Your task to perform on an android device: View the shopping cart on newegg.com. Image 0: 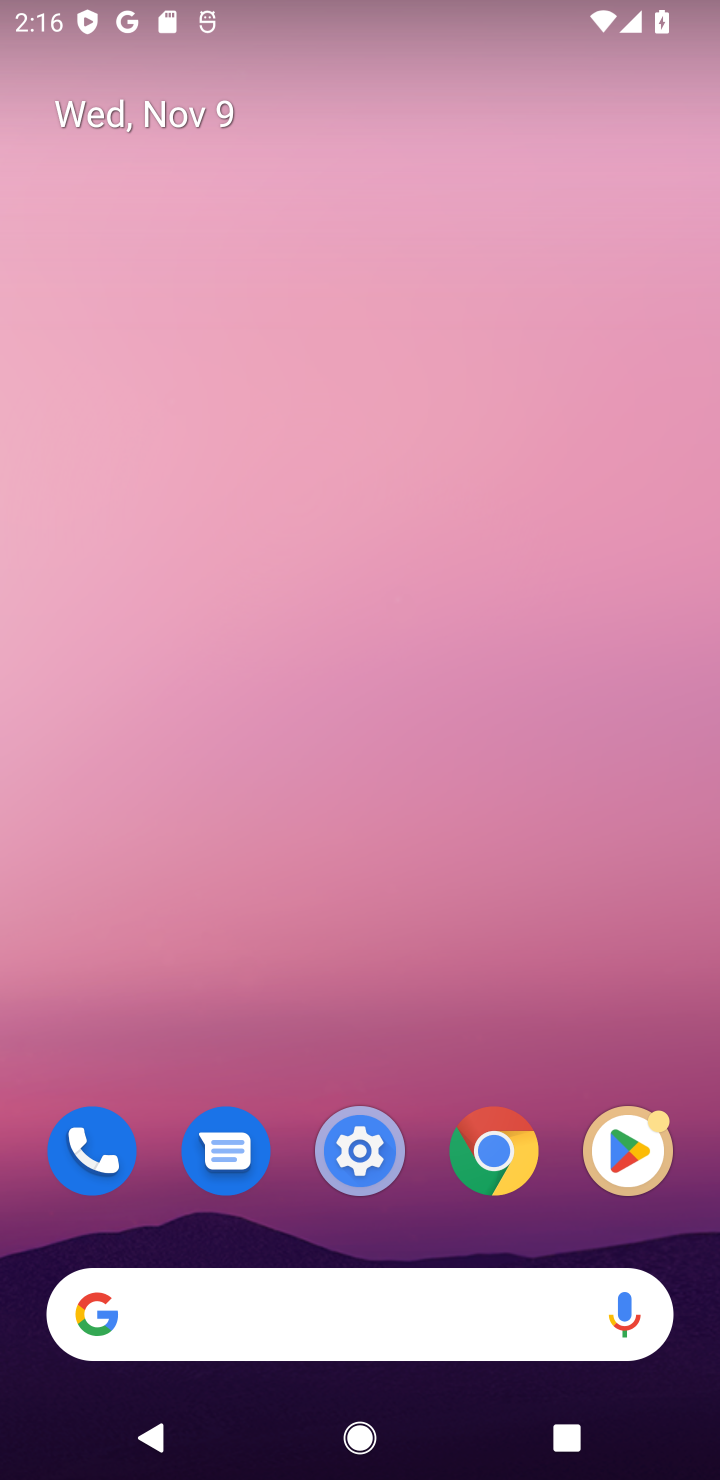
Step 0: click (341, 1293)
Your task to perform on an android device: View the shopping cart on newegg.com. Image 1: 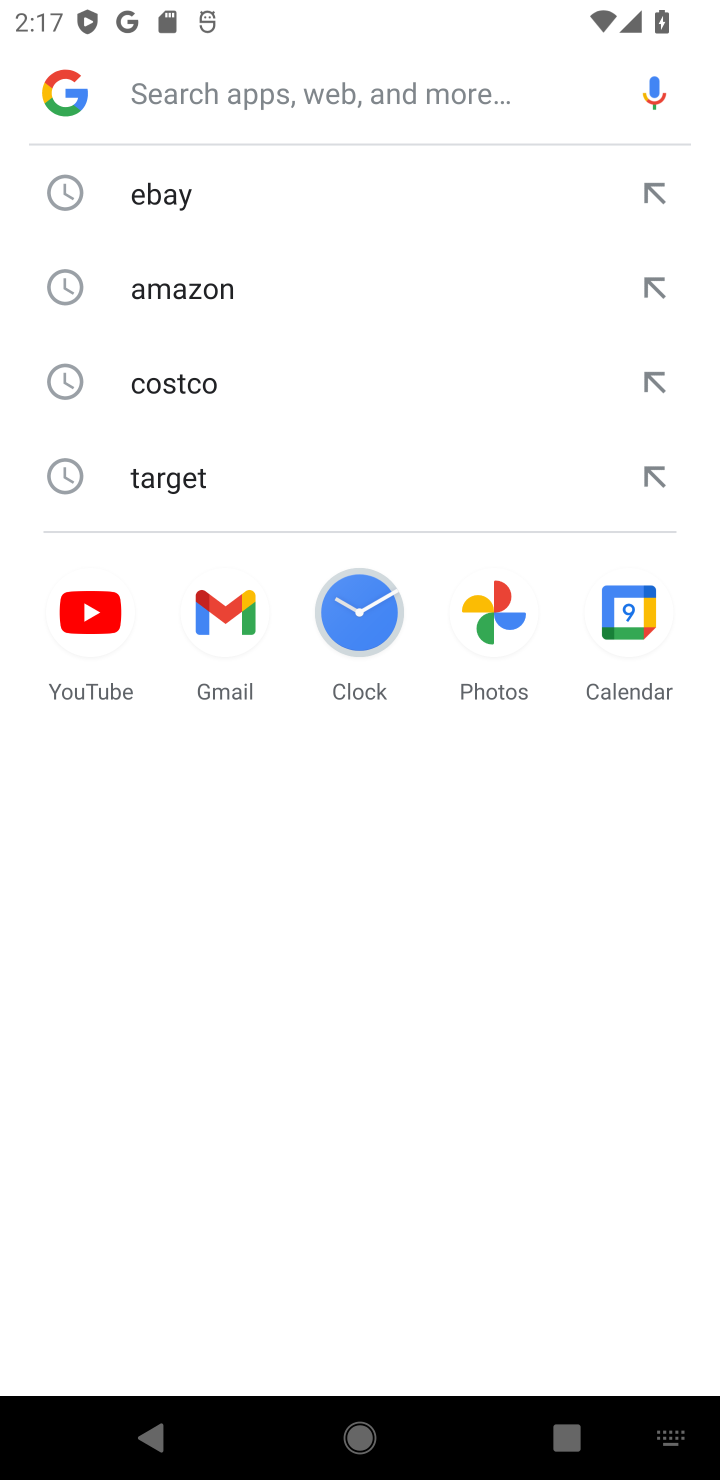
Step 1: type "newegg.com"
Your task to perform on an android device: View the shopping cart on newegg.com. Image 2: 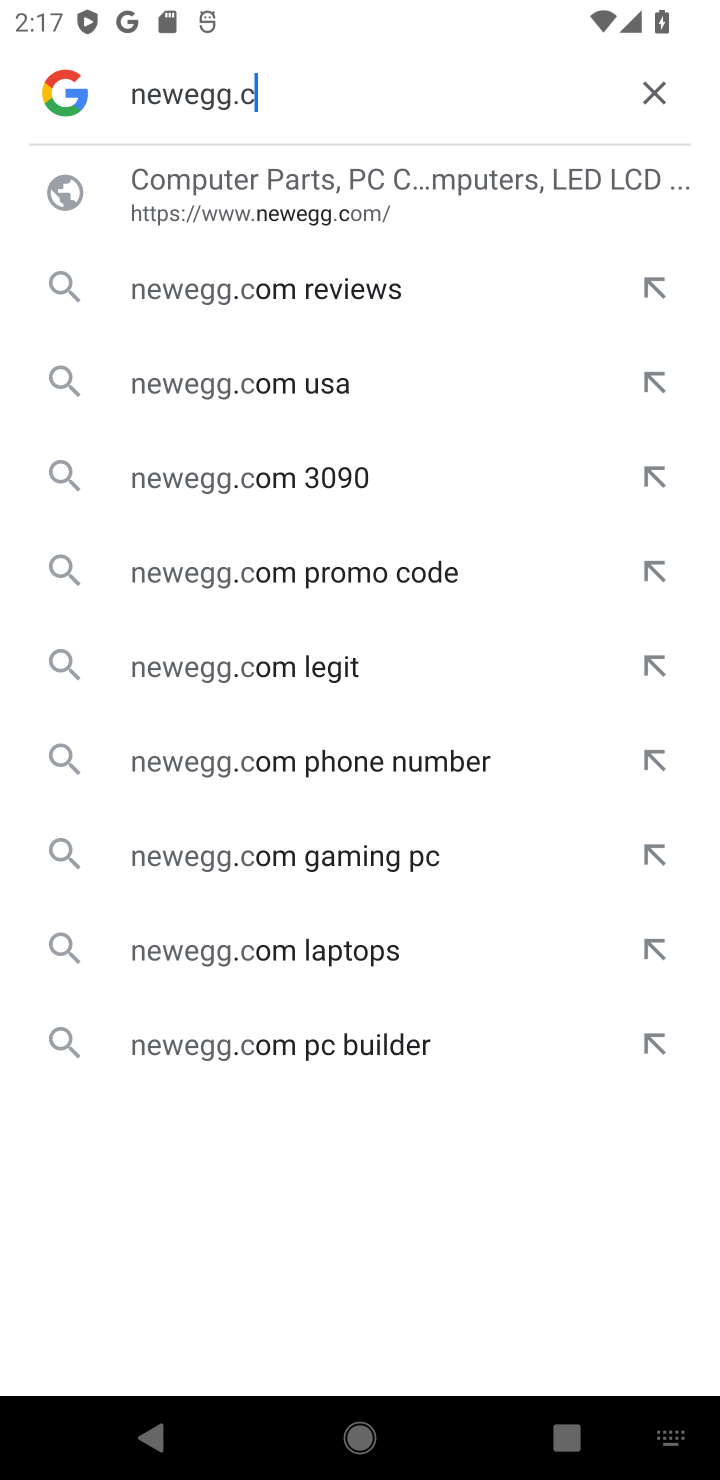
Step 2: type ""
Your task to perform on an android device: View the shopping cart on newegg.com. Image 3: 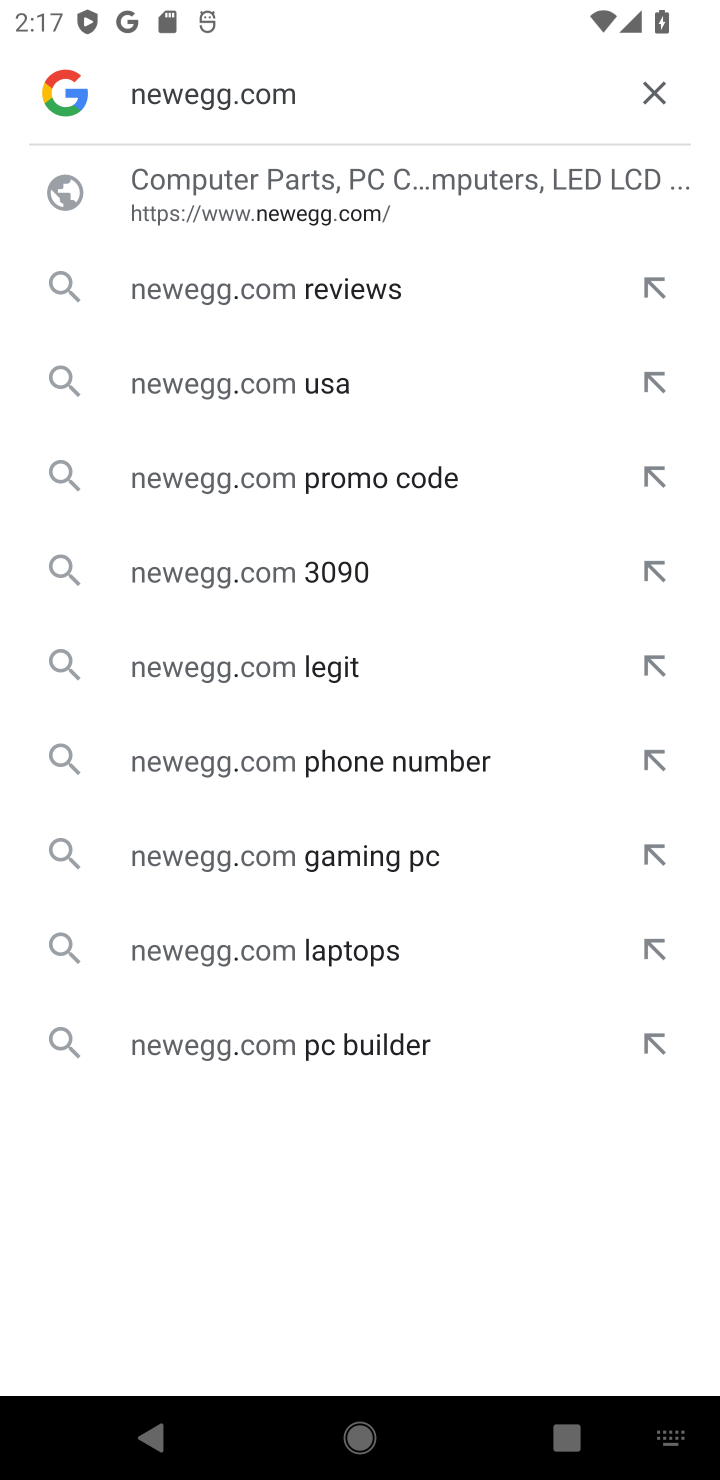
Step 3: press enter
Your task to perform on an android device: View the shopping cart on newegg.com. Image 4: 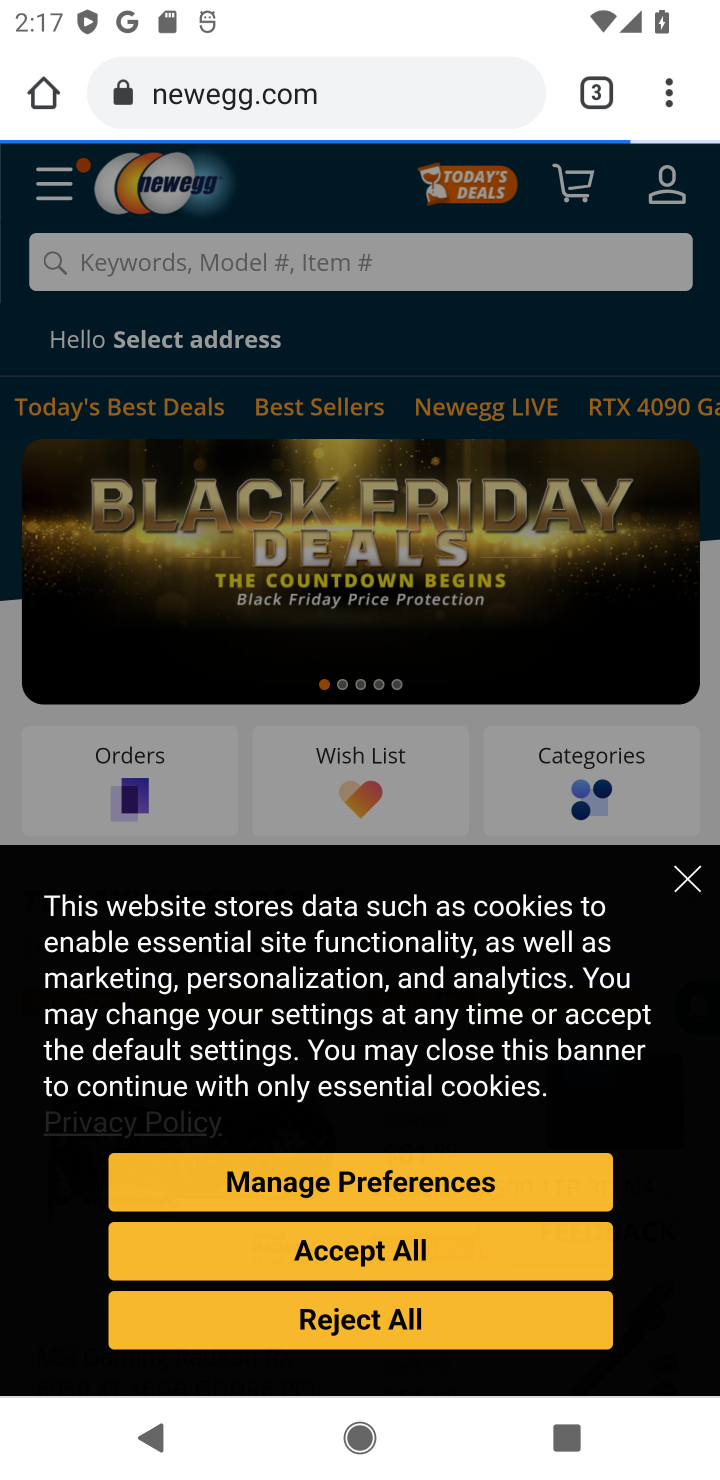
Step 4: click (259, 261)
Your task to perform on an android device: View the shopping cart on newegg.com. Image 5: 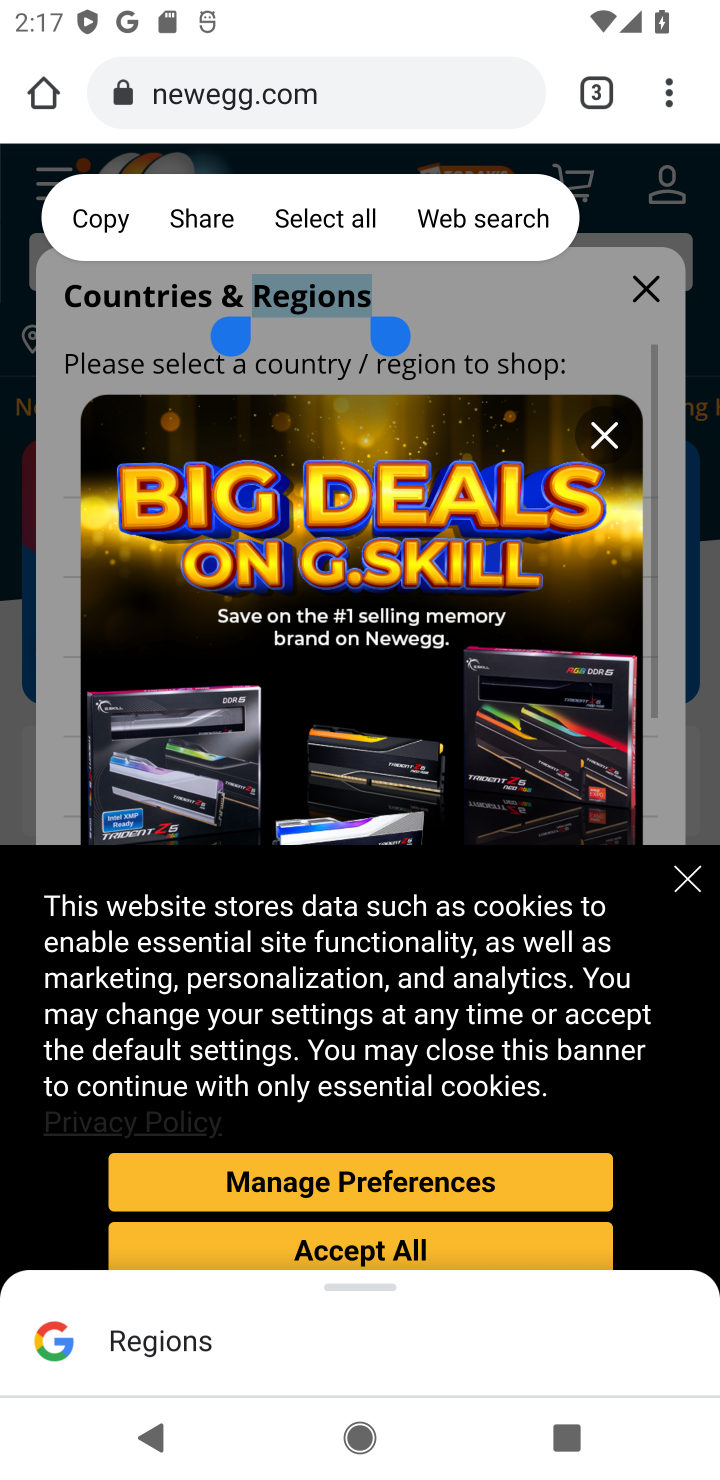
Step 5: click (691, 882)
Your task to perform on an android device: View the shopping cart on newegg.com. Image 6: 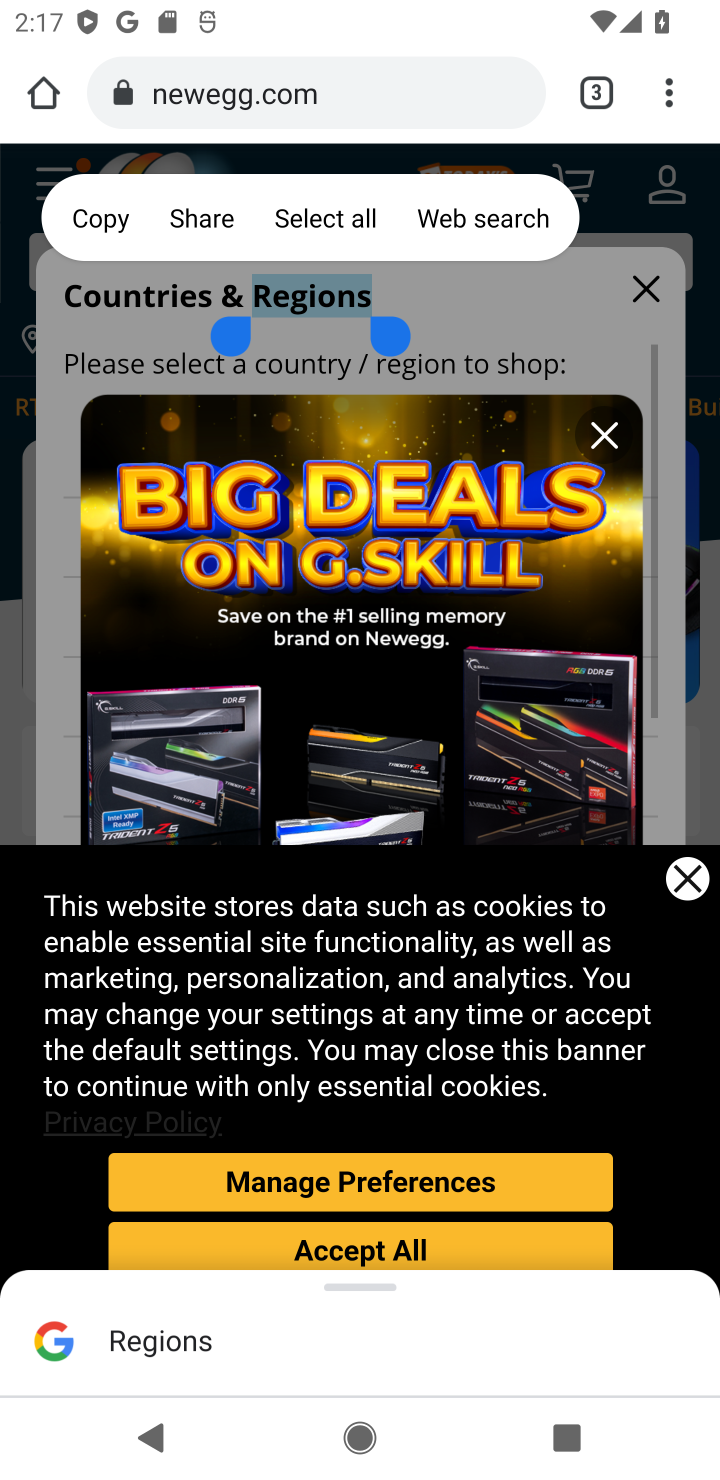
Step 6: click (689, 880)
Your task to perform on an android device: View the shopping cart on newegg.com. Image 7: 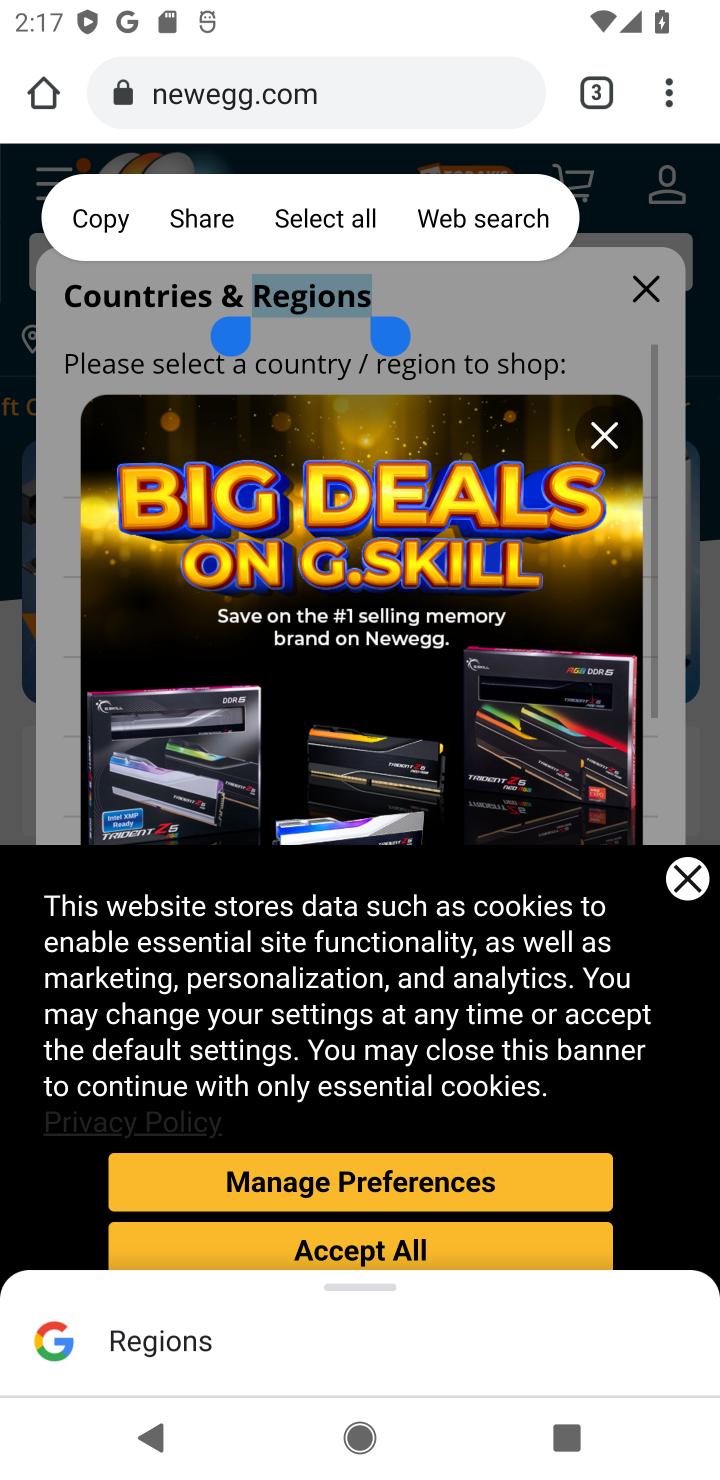
Step 7: click (689, 880)
Your task to perform on an android device: View the shopping cart on newegg.com. Image 8: 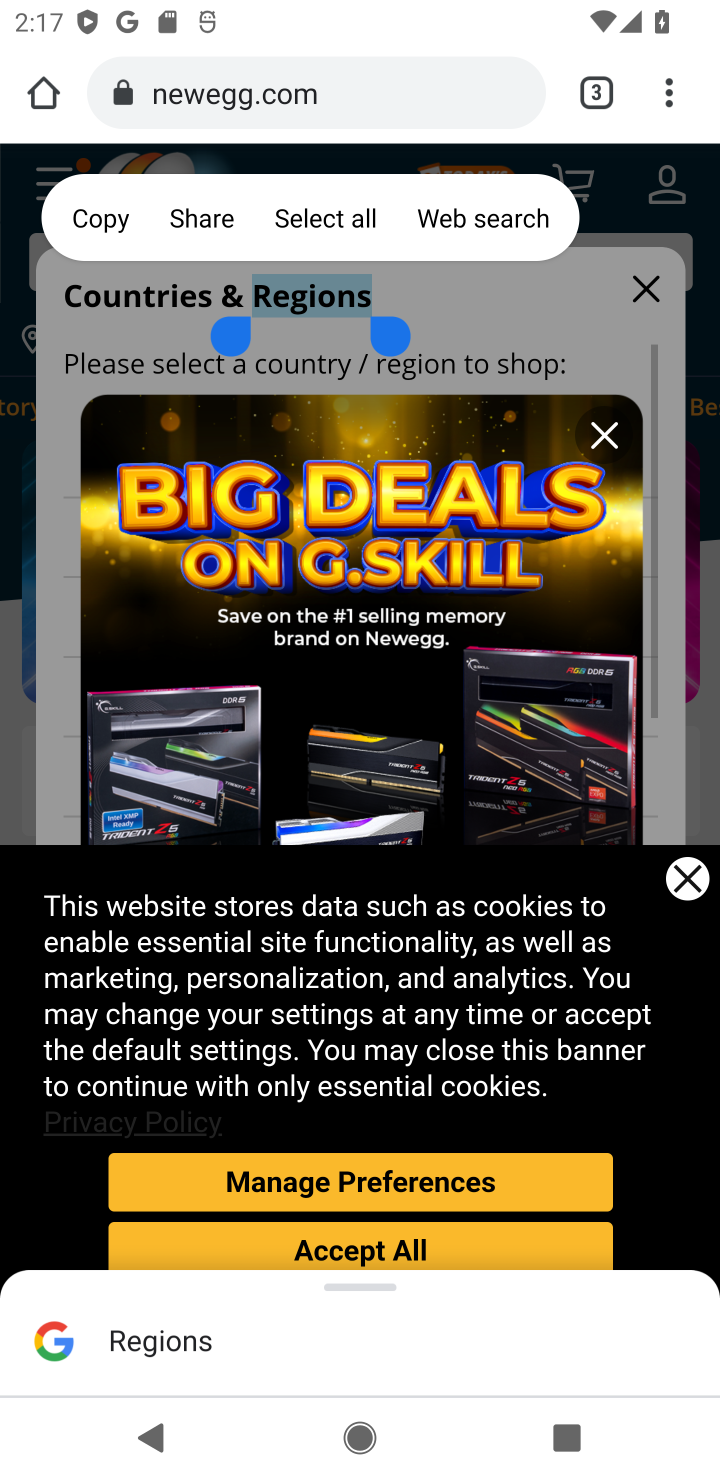
Step 8: click (700, 1034)
Your task to perform on an android device: View the shopping cart on newegg.com. Image 9: 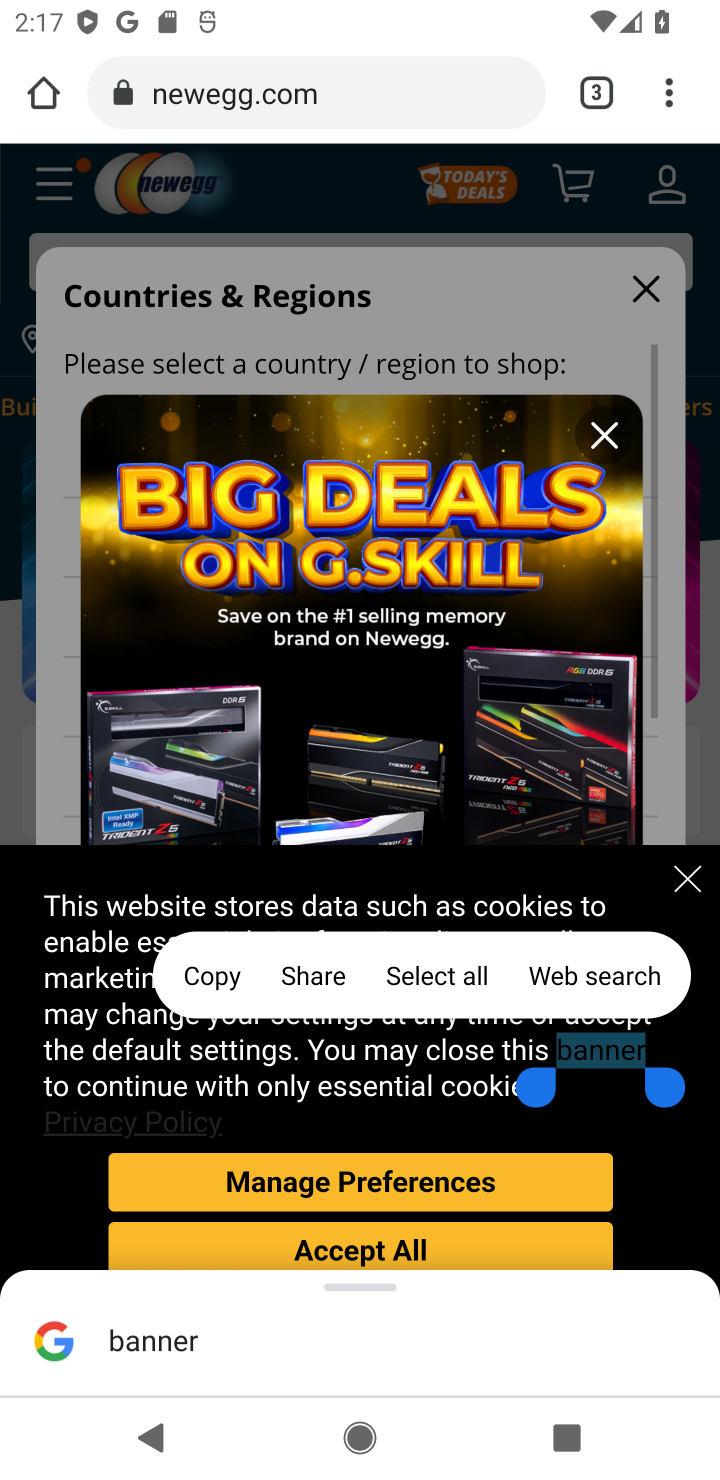
Step 9: click (662, 1168)
Your task to perform on an android device: View the shopping cart on newegg.com. Image 10: 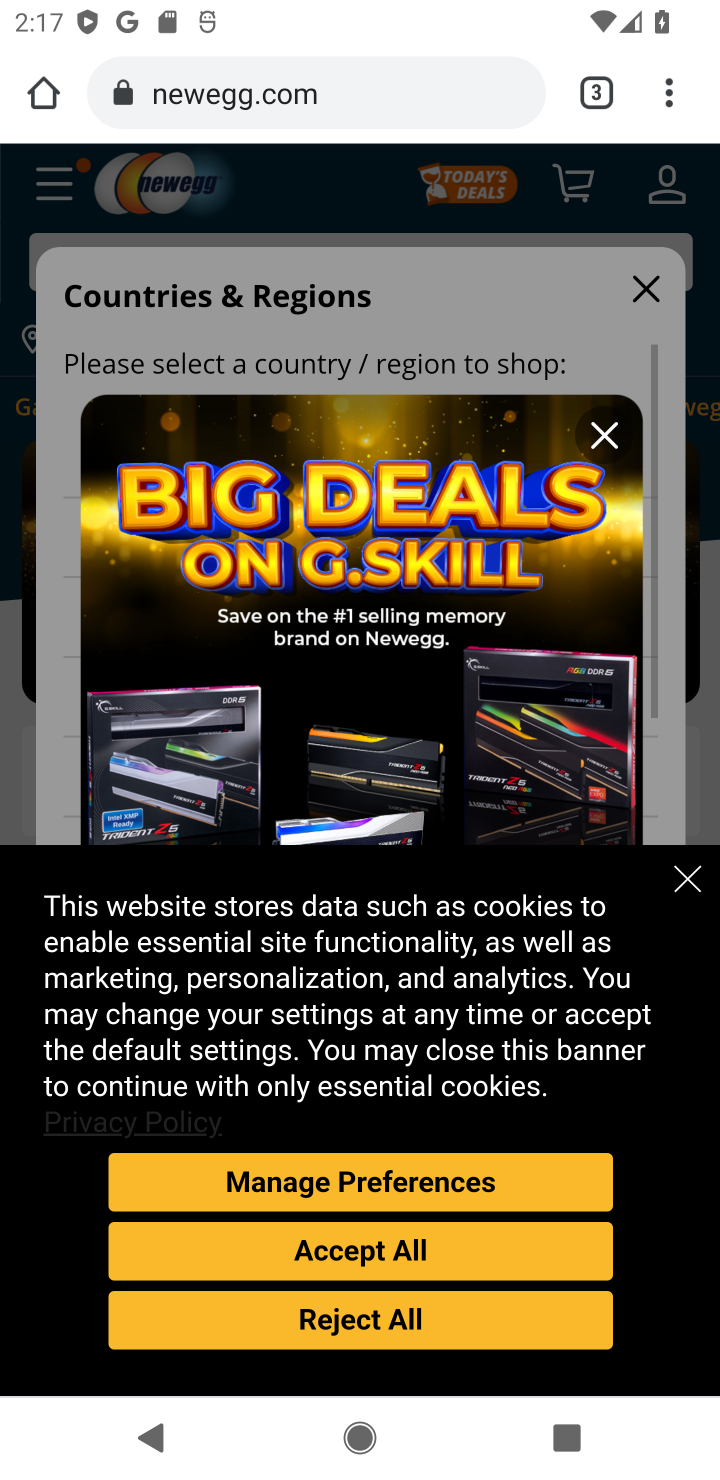
Step 10: click (381, 1329)
Your task to perform on an android device: View the shopping cart on newegg.com. Image 11: 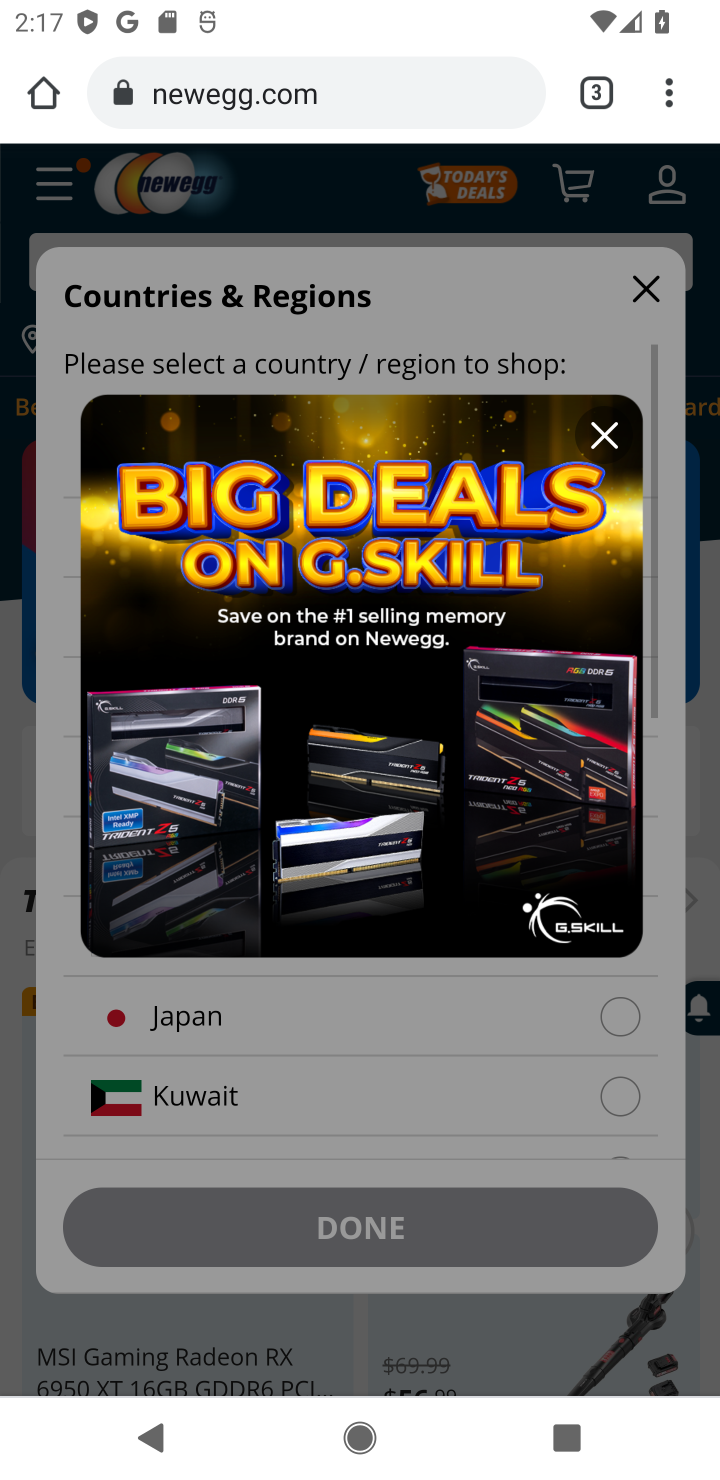
Step 11: click (649, 293)
Your task to perform on an android device: View the shopping cart on newegg.com. Image 12: 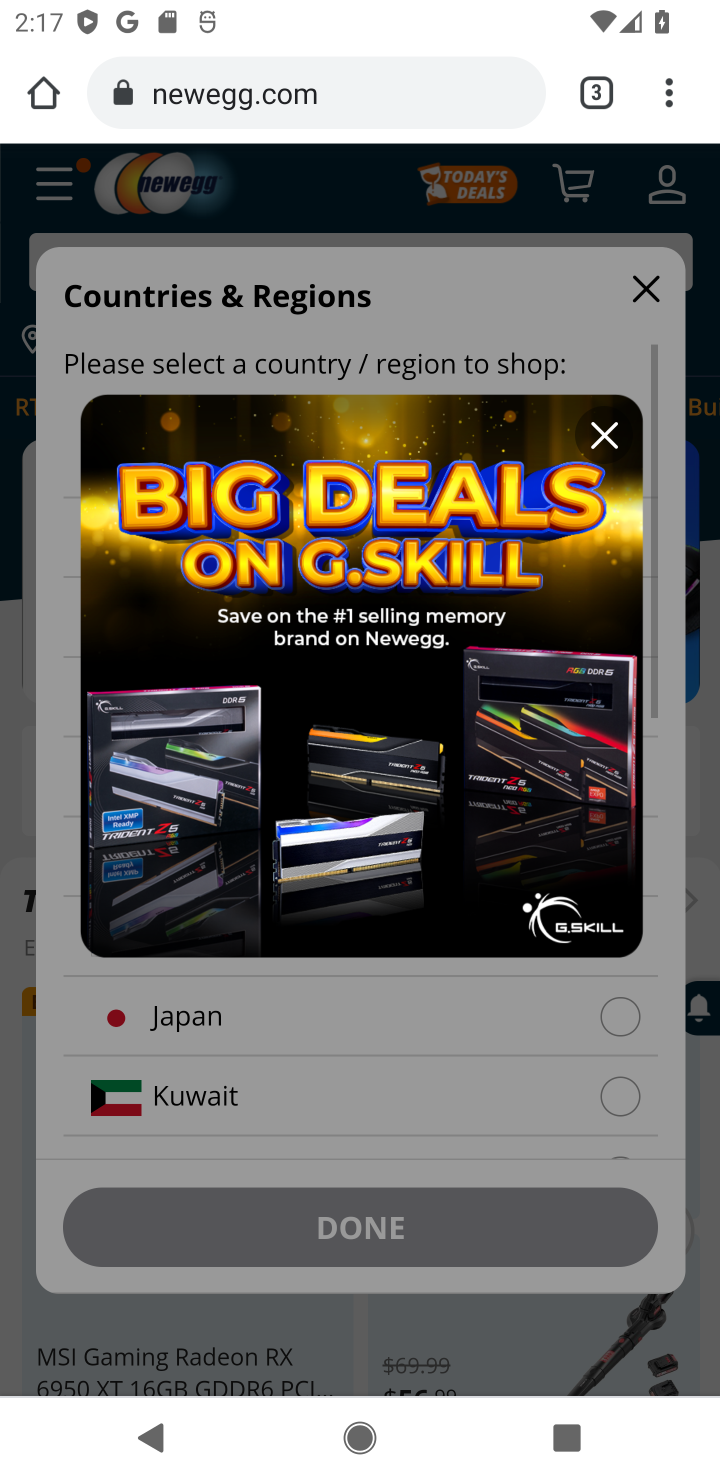
Step 12: click (649, 287)
Your task to perform on an android device: View the shopping cart on newegg.com. Image 13: 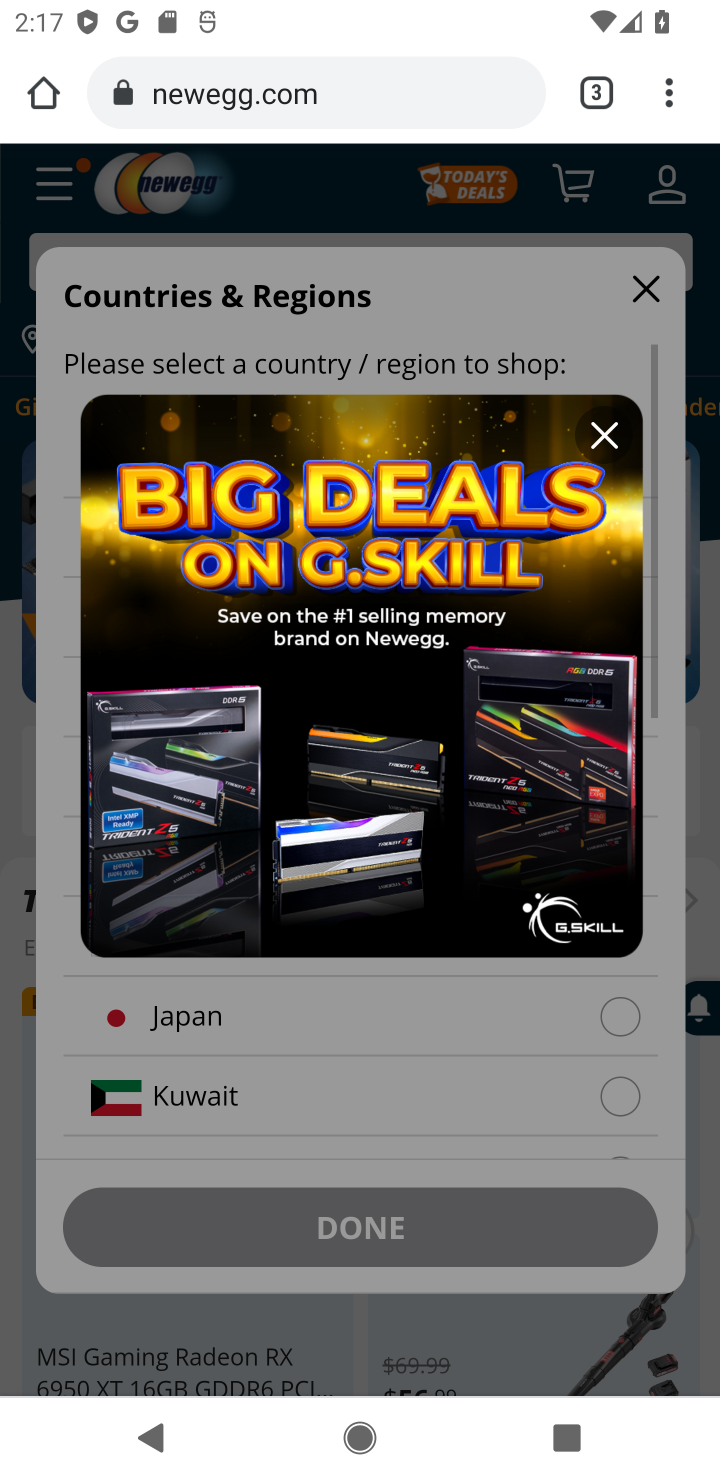
Step 13: click (606, 438)
Your task to perform on an android device: View the shopping cart on newegg.com. Image 14: 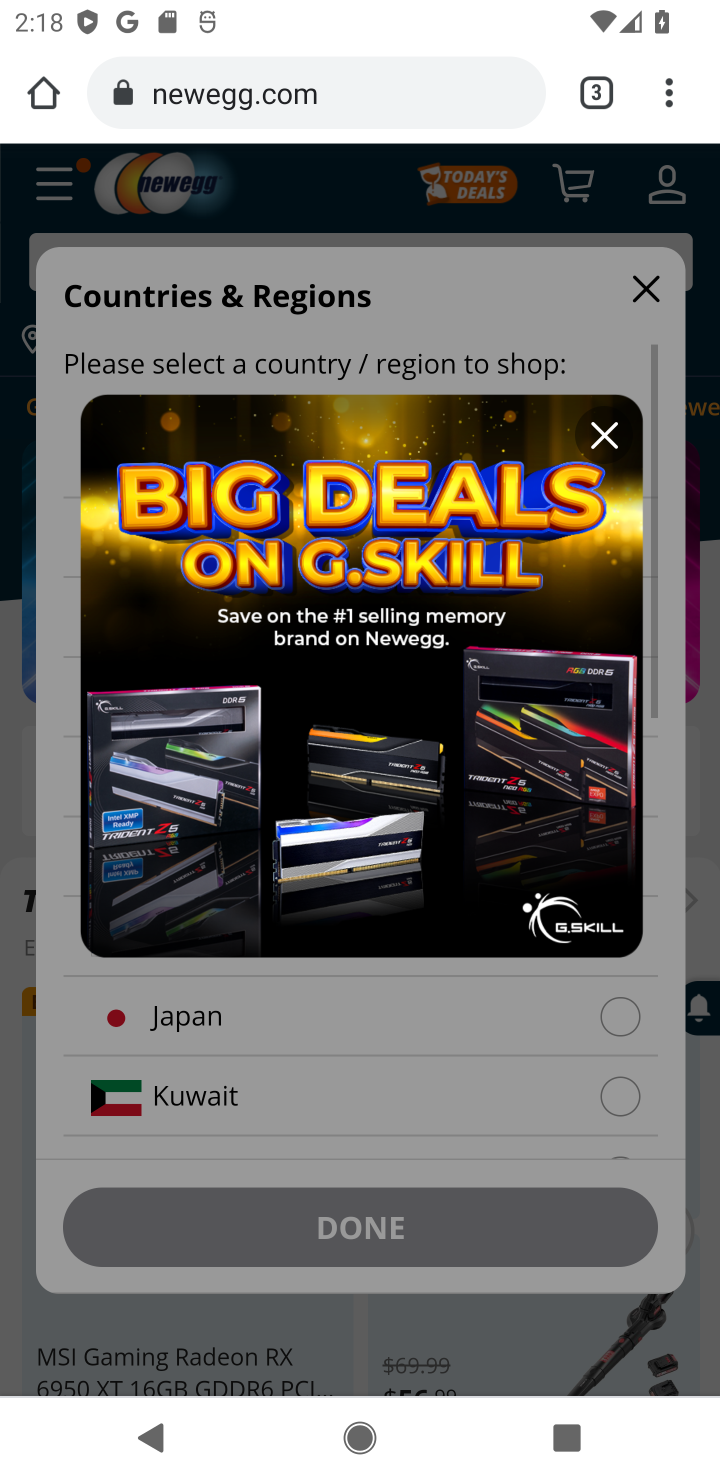
Step 14: click (617, 1091)
Your task to perform on an android device: View the shopping cart on newegg.com. Image 15: 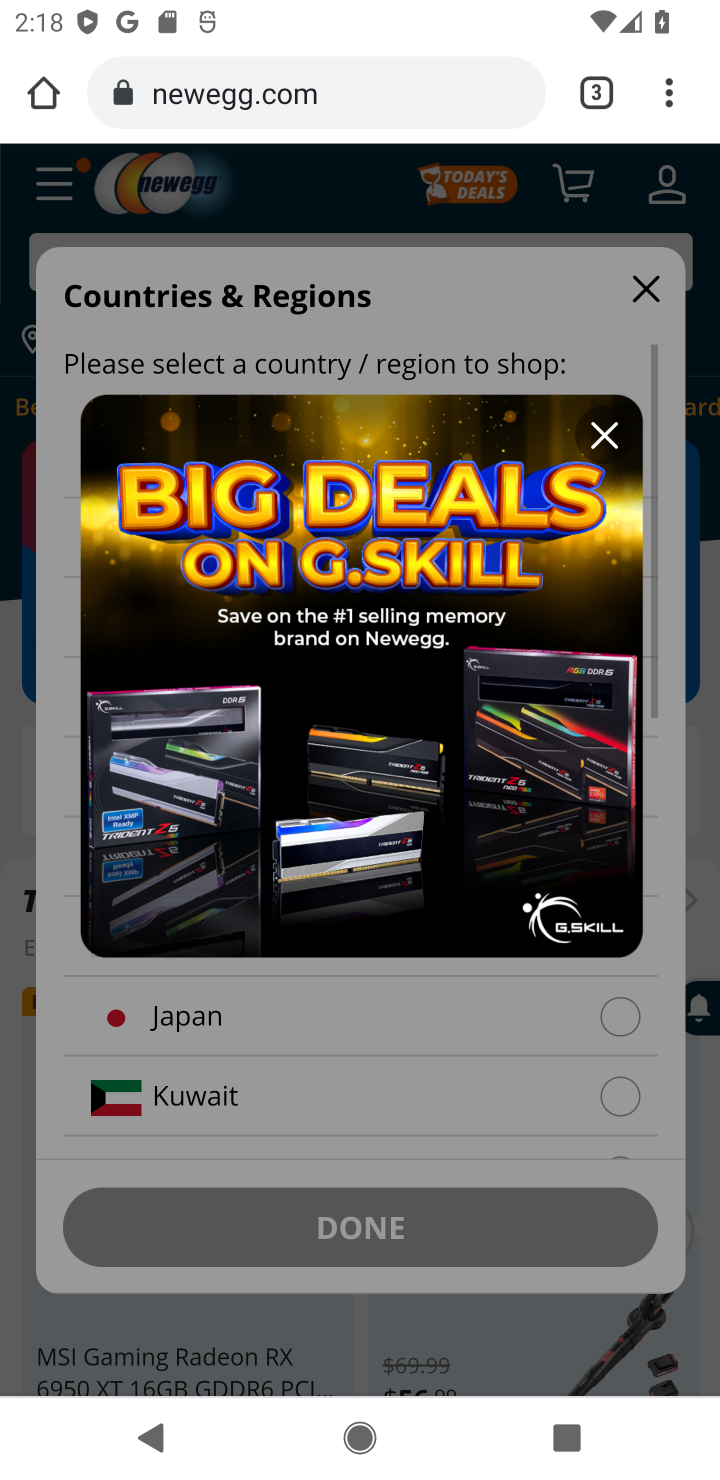
Step 15: task complete